Your task to perform on an android device: turn off improve location accuracy Image 0: 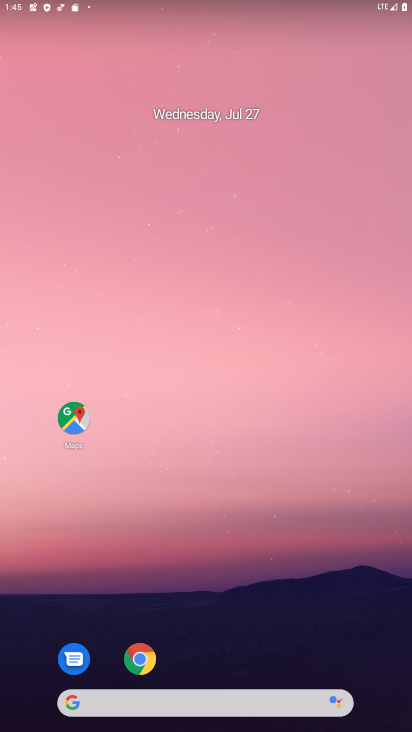
Step 0: drag from (225, 724) to (231, 169)
Your task to perform on an android device: turn off improve location accuracy Image 1: 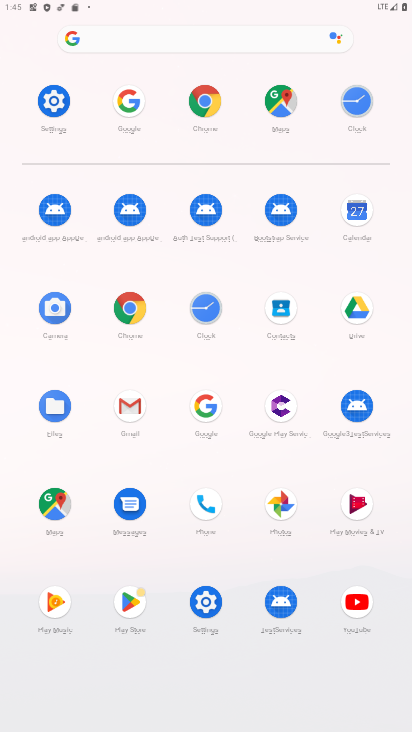
Step 1: click (55, 96)
Your task to perform on an android device: turn off improve location accuracy Image 2: 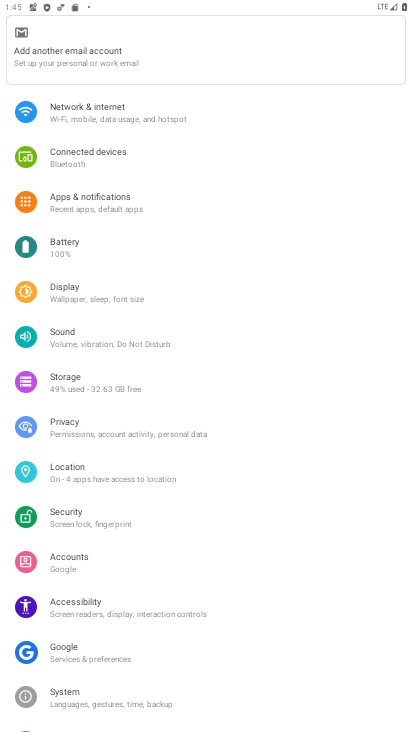
Step 2: click (66, 474)
Your task to perform on an android device: turn off improve location accuracy Image 3: 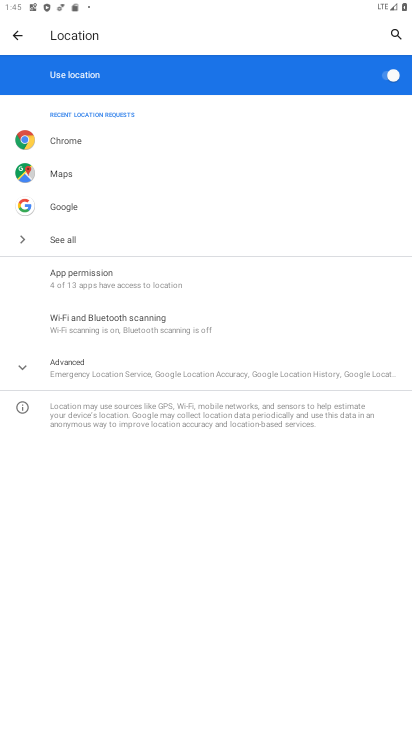
Step 3: click (81, 366)
Your task to perform on an android device: turn off improve location accuracy Image 4: 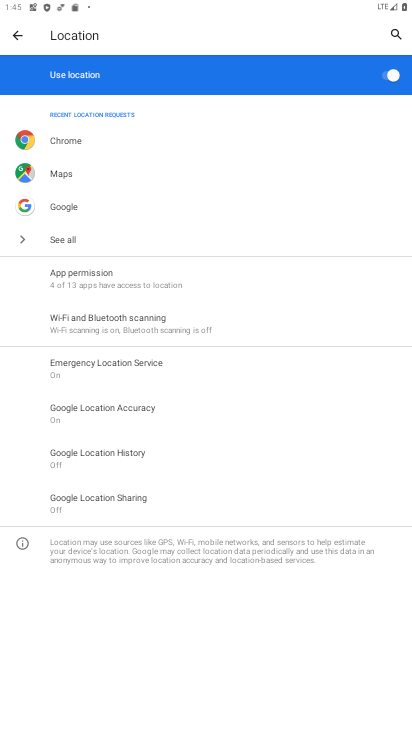
Step 4: click (94, 400)
Your task to perform on an android device: turn off improve location accuracy Image 5: 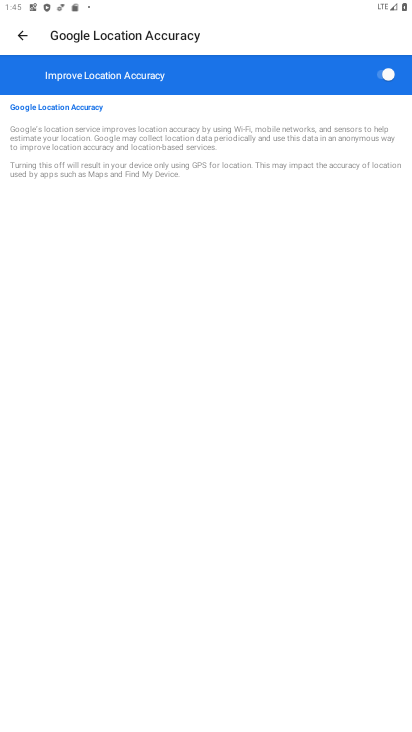
Step 5: click (393, 79)
Your task to perform on an android device: turn off improve location accuracy Image 6: 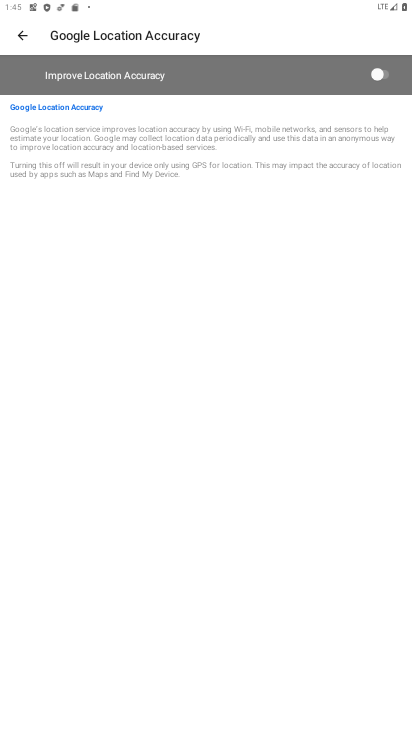
Step 6: task complete